Your task to perform on an android device: Open display settings Image 0: 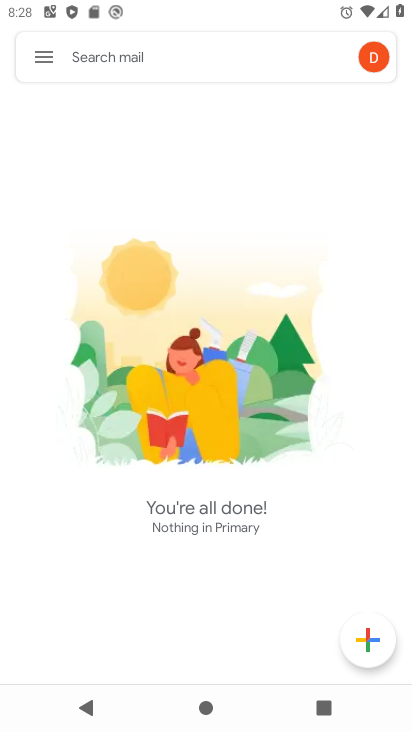
Step 0: press home button
Your task to perform on an android device: Open display settings Image 1: 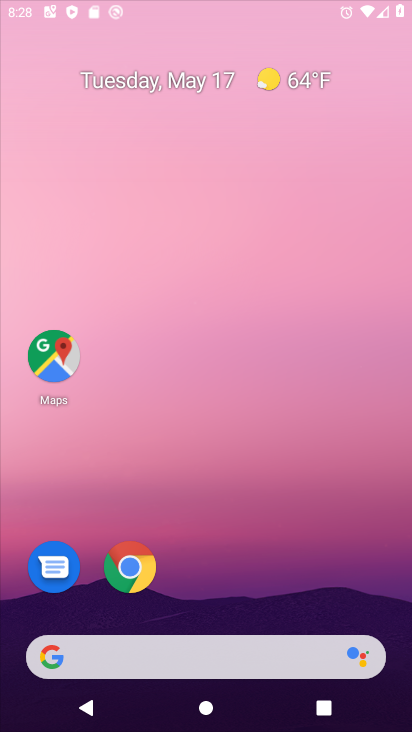
Step 1: drag from (388, 635) to (306, 157)
Your task to perform on an android device: Open display settings Image 2: 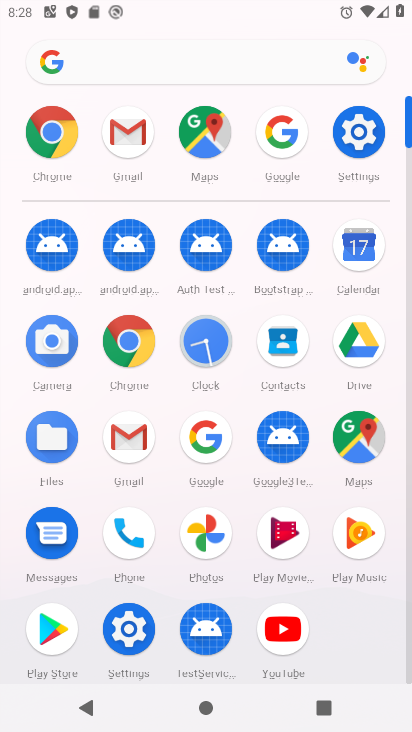
Step 2: click (121, 649)
Your task to perform on an android device: Open display settings Image 3: 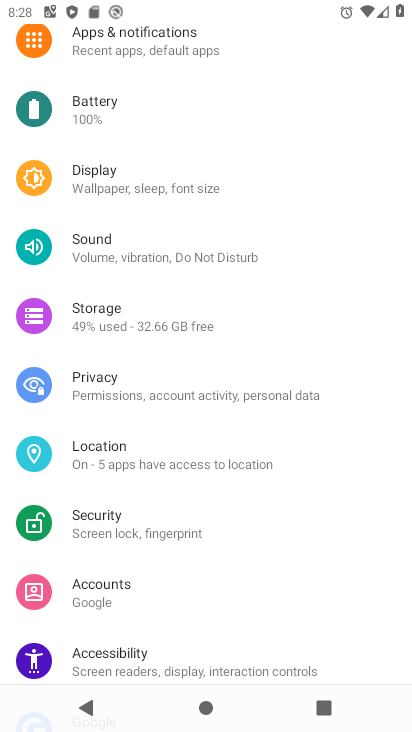
Step 3: click (150, 174)
Your task to perform on an android device: Open display settings Image 4: 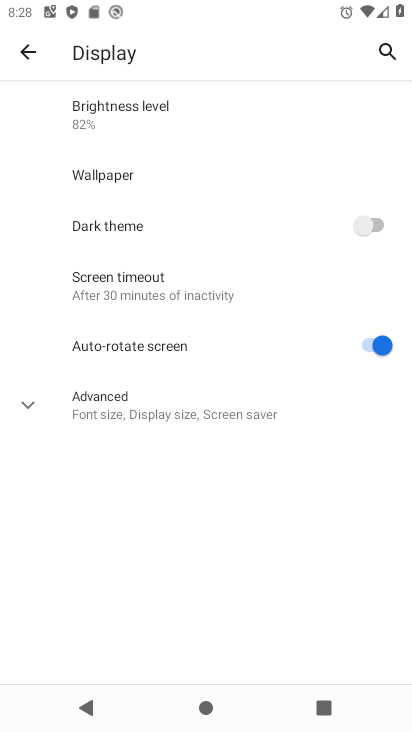
Step 4: task complete